Your task to perform on an android device: Go to settings Image 0: 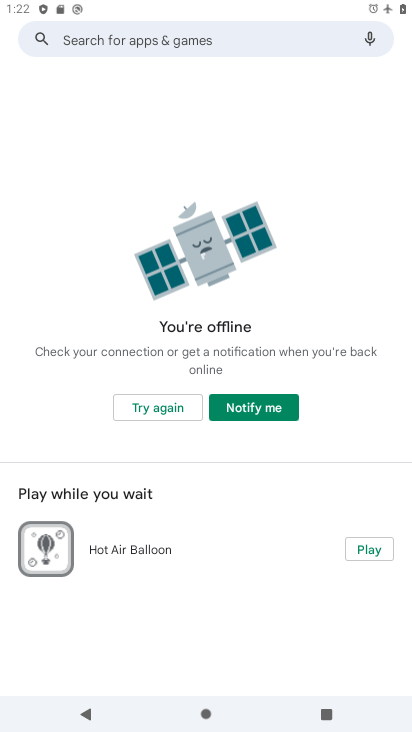
Step 0: press home button
Your task to perform on an android device: Go to settings Image 1: 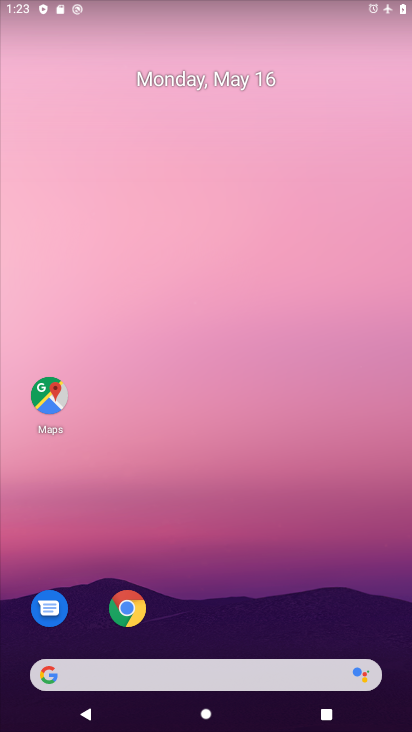
Step 1: drag from (209, 592) to (207, 141)
Your task to perform on an android device: Go to settings Image 2: 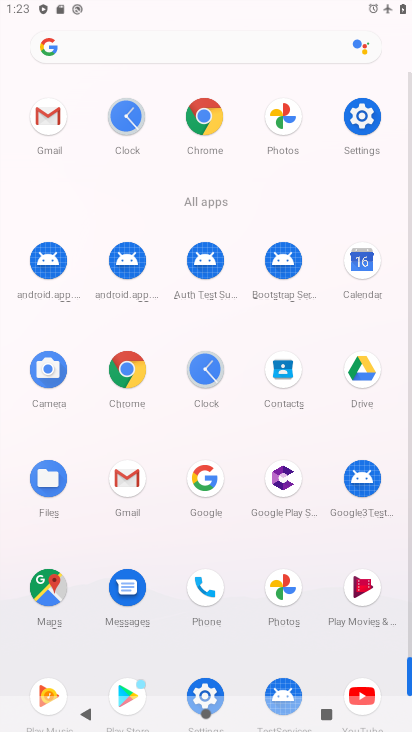
Step 2: click (366, 118)
Your task to perform on an android device: Go to settings Image 3: 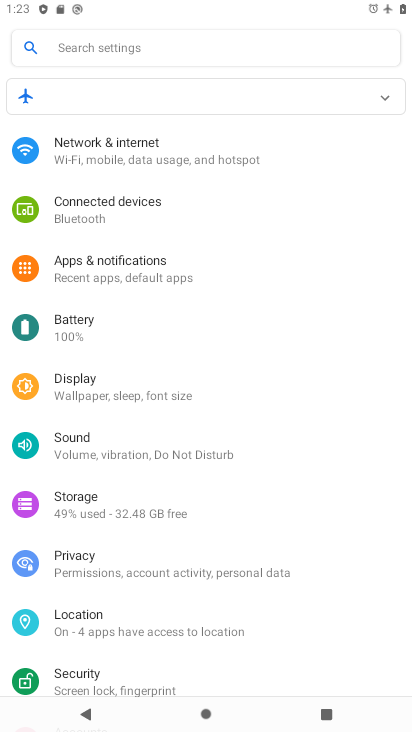
Step 3: task complete